Your task to perform on an android device: What's the weather today? Image 0: 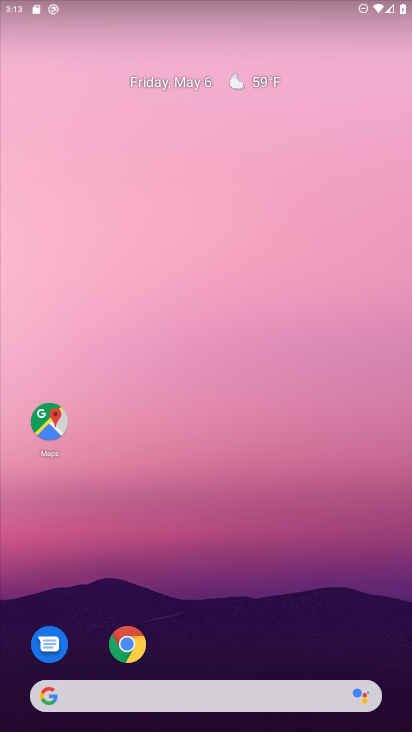
Step 0: drag from (207, 727) to (172, 26)
Your task to perform on an android device: What's the weather today? Image 1: 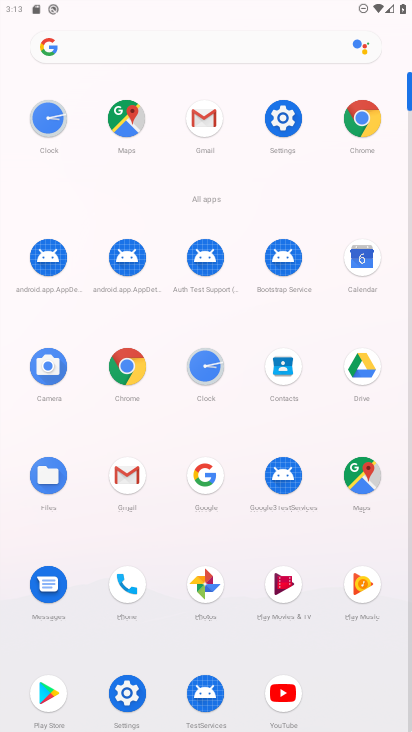
Step 1: click (204, 480)
Your task to perform on an android device: What's the weather today? Image 2: 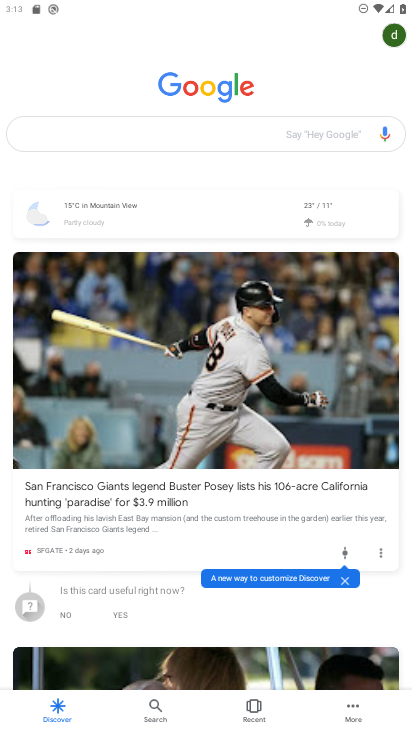
Step 2: click (74, 212)
Your task to perform on an android device: What's the weather today? Image 3: 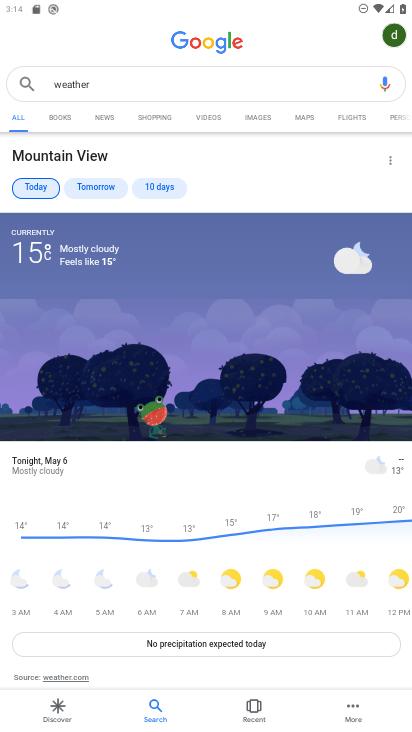
Step 3: task complete